Your task to perform on an android device: Open Android settings Image 0: 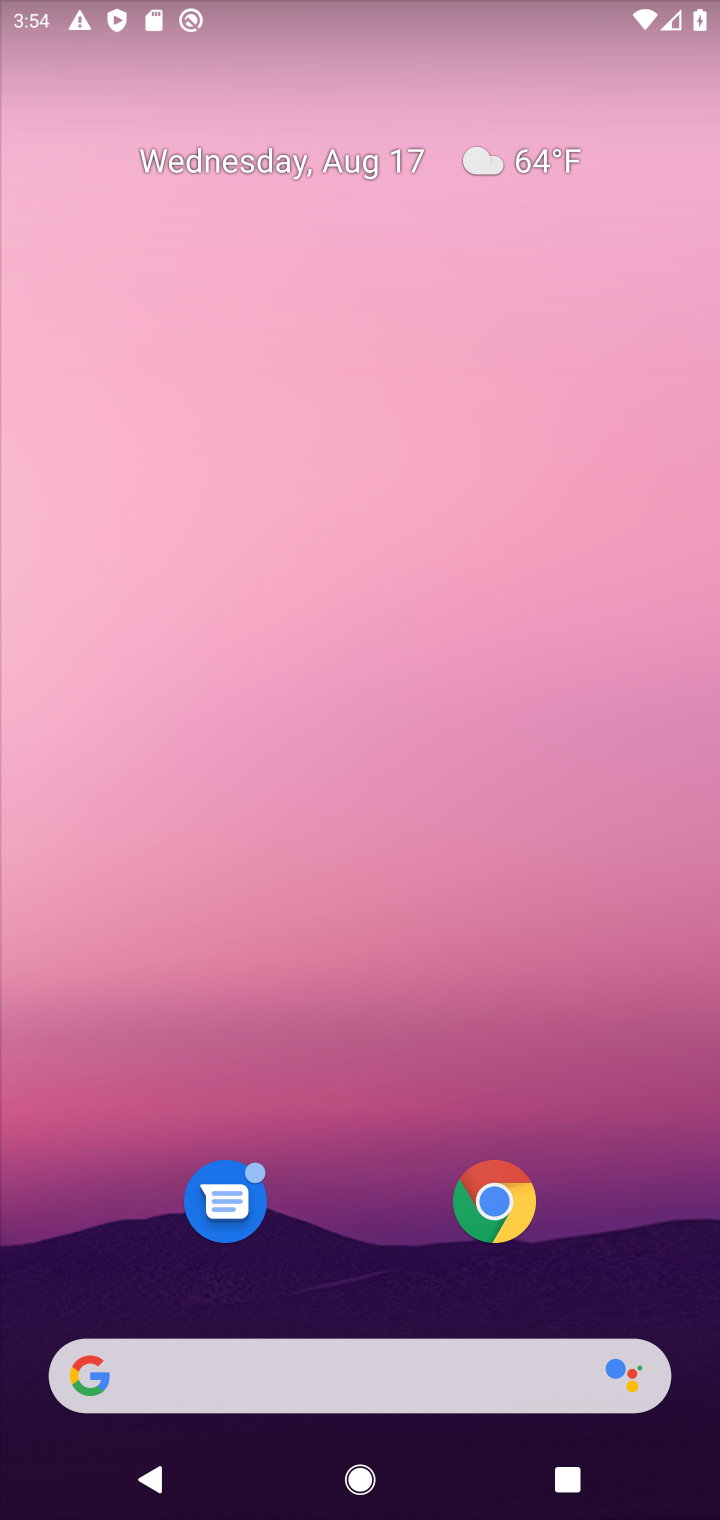
Step 0: drag from (354, 983) to (470, 30)
Your task to perform on an android device: Open Android settings Image 1: 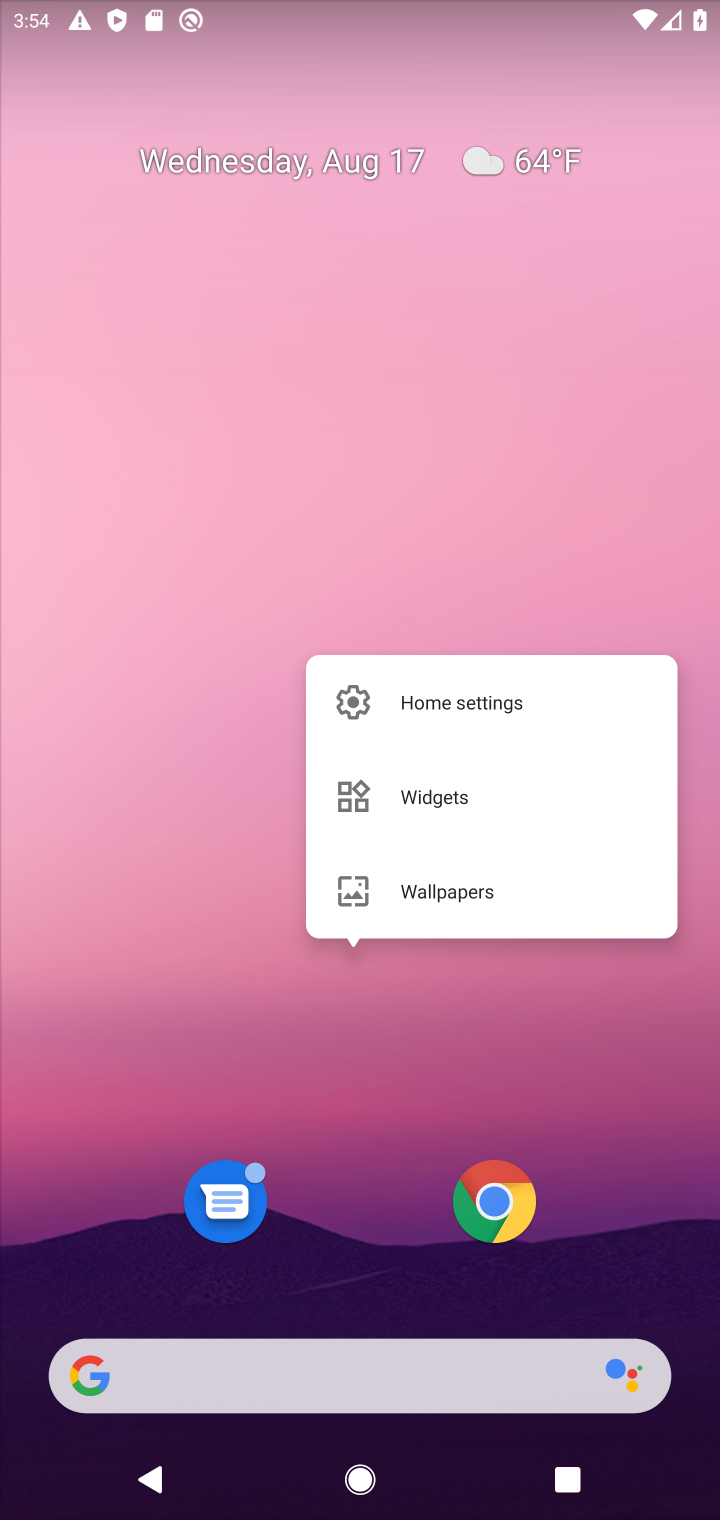
Step 1: click (344, 1055)
Your task to perform on an android device: Open Android settings Image 2: 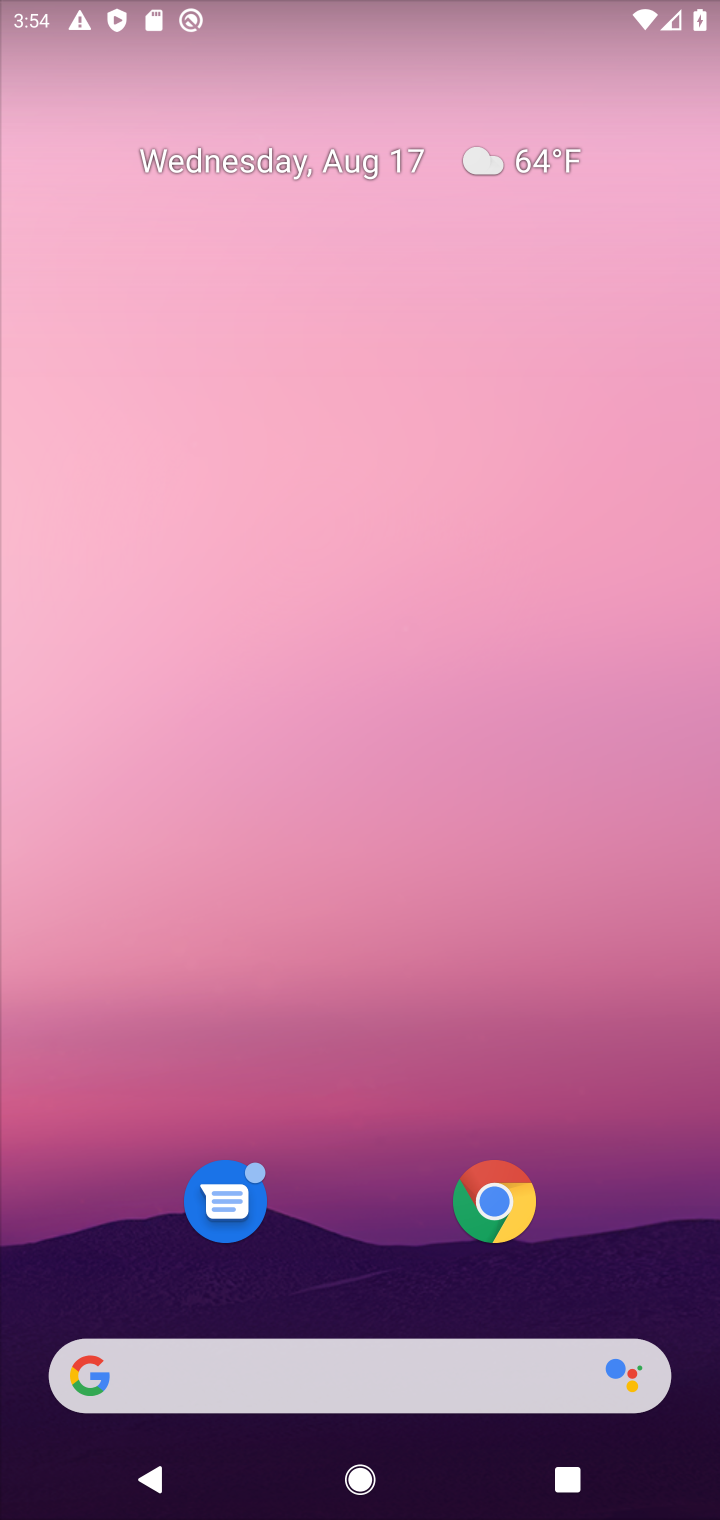
Step 2: drag from (326, 1265) to (365, 13)
Your task to perform on an android device: Open Android settings Image 3: 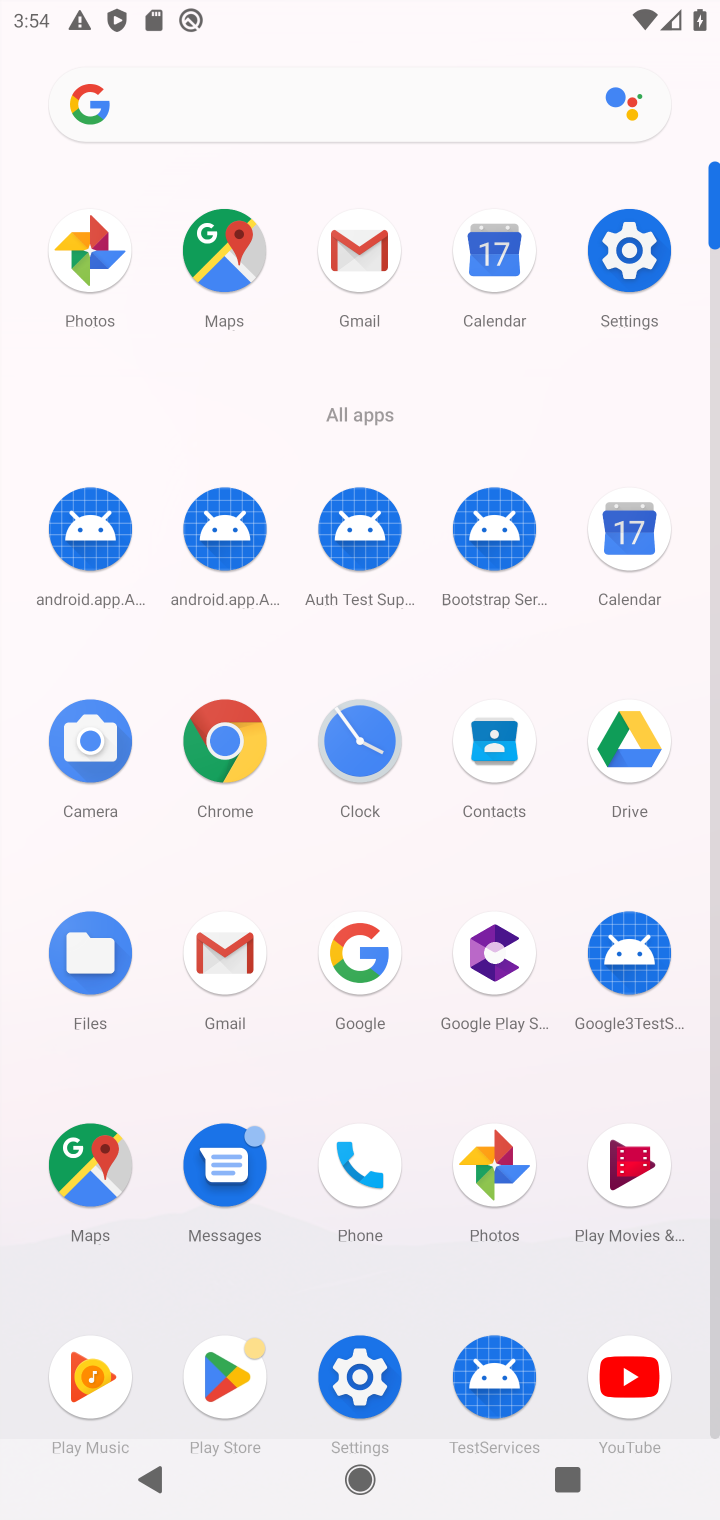
Step 3: click (357, 1375)
Your task to perform on an android device: Open Android settings Image 4: 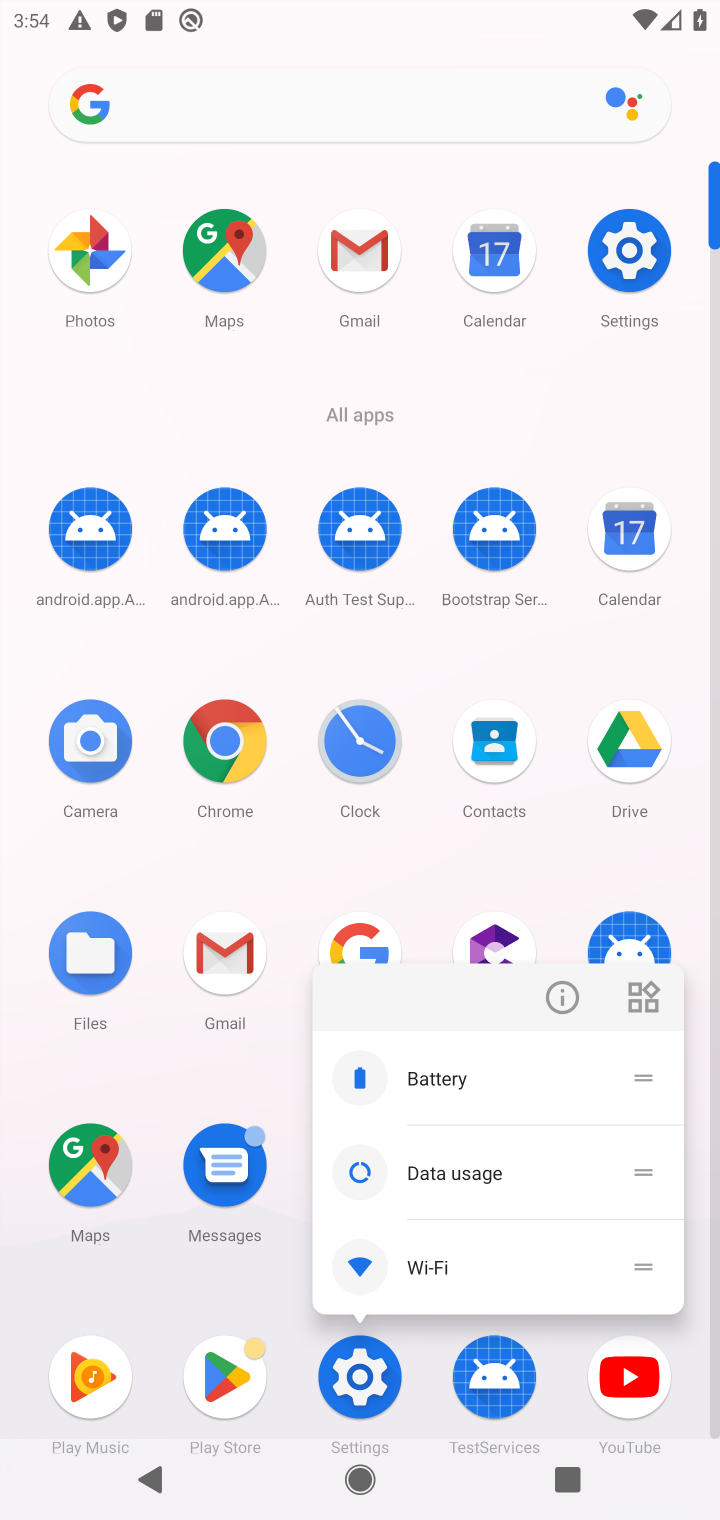
Step 4: click (374, 1348)
Your task to perform on an android device: Open Android settings Image 5: 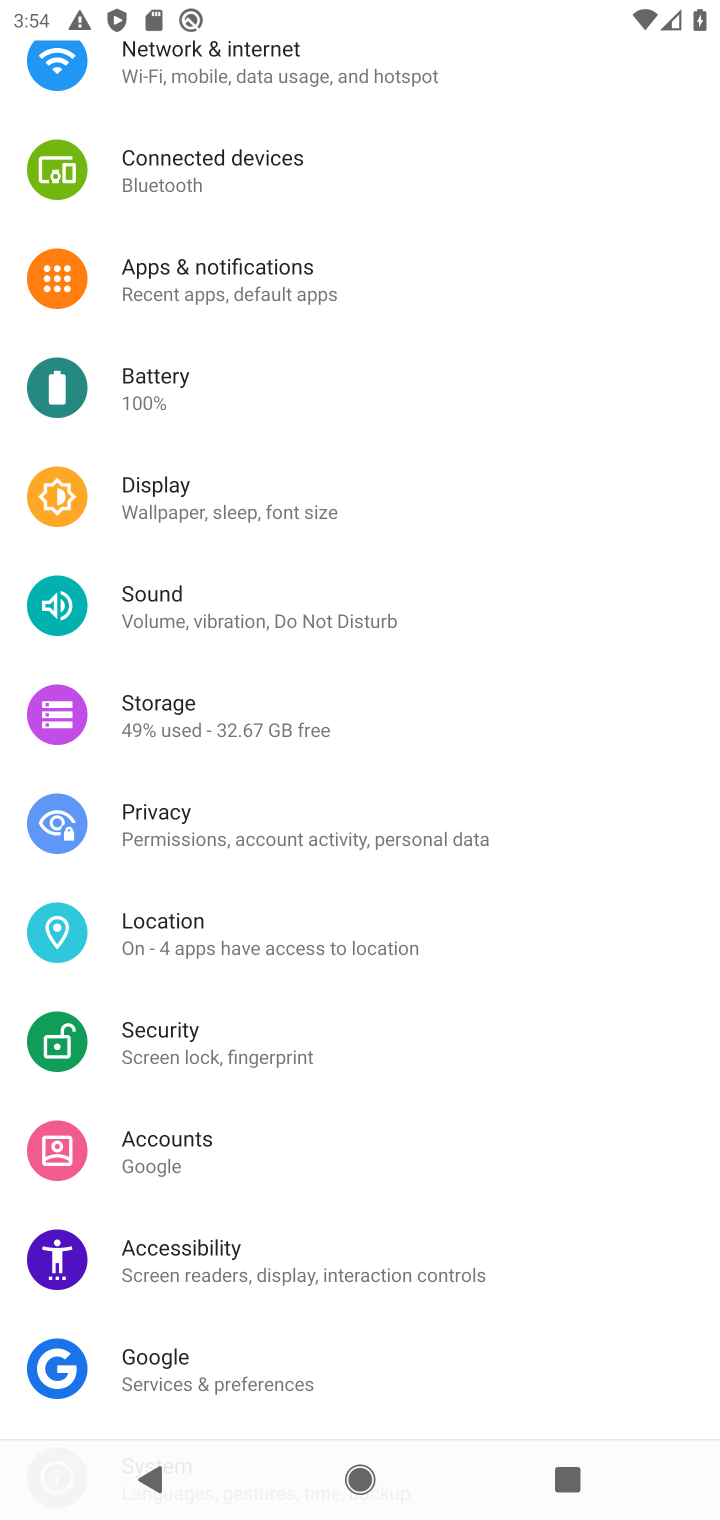
Step 5: drag from (334, 1281) to (385, 92)
Your task to perform on an android device: Open Android settings Image 6: 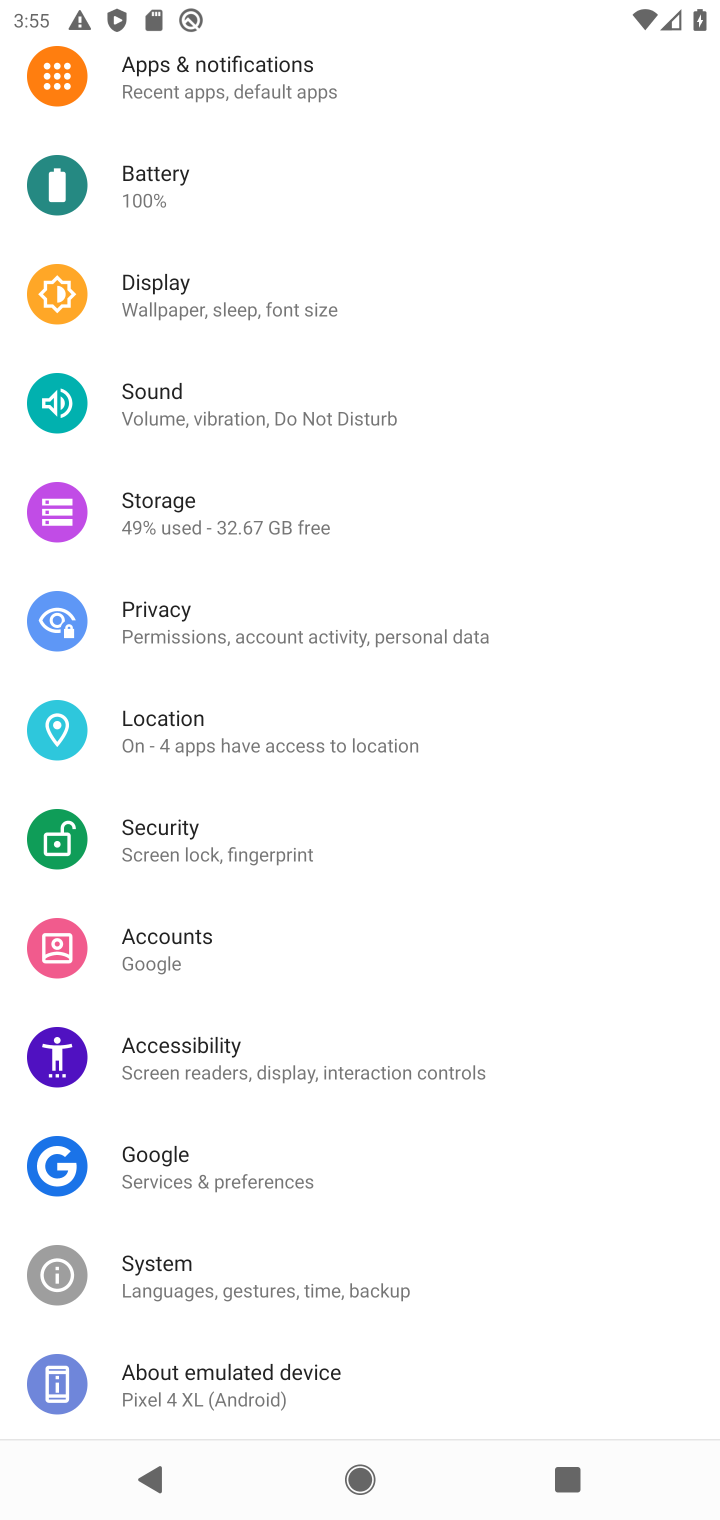
Step 6: click (260, 1380)
Your task to perform on an android device: Open Android settings Image 7: 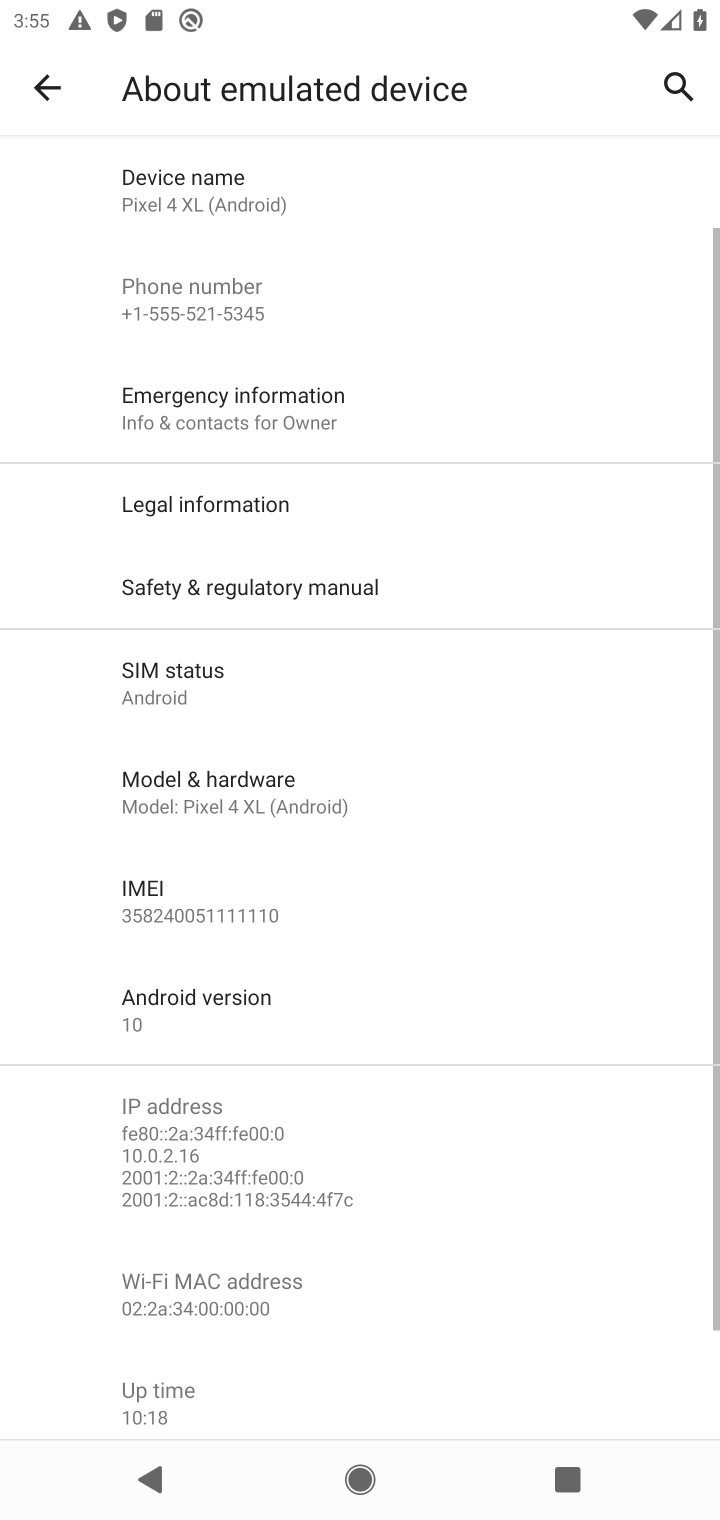
Step 7: click (245, 990)
Your task to perform on an android device: Open Android settings Image 8: 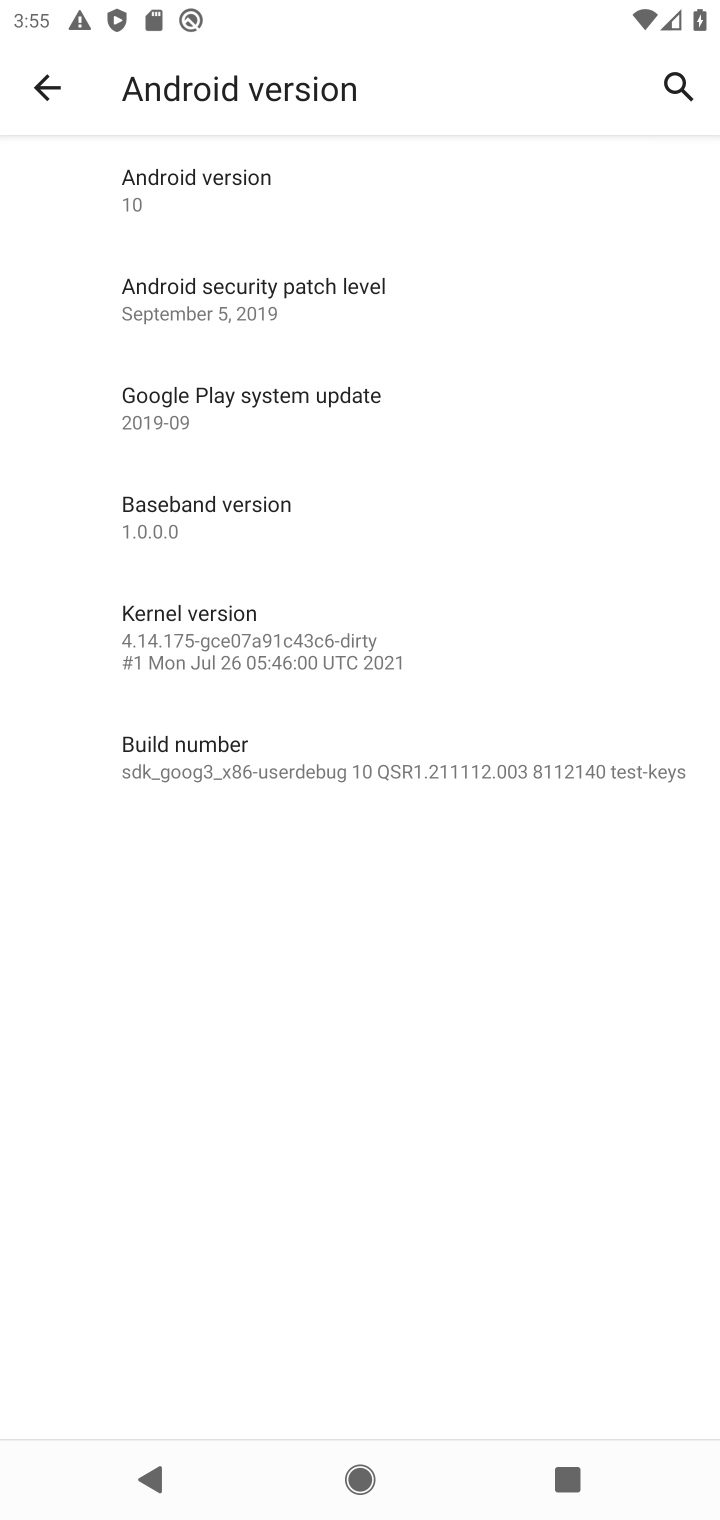
Step 8: task complete